Your task to perform on an android device: delete location history Image 0: 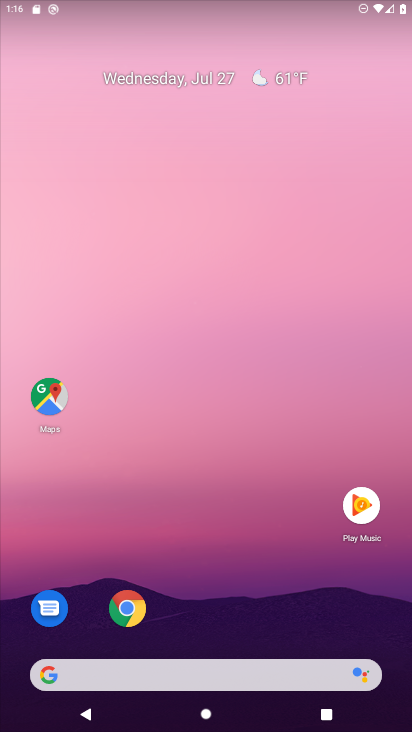
Step 0: press home button
Your task to perform on an android device: delete location history Image 1: 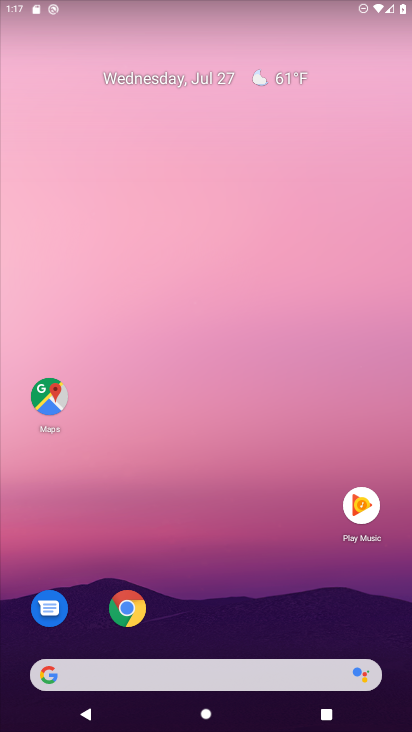
Step 1: drag from (301, 581) to (318, 151)
Your task to perform on an android device: delete location history Image 2: 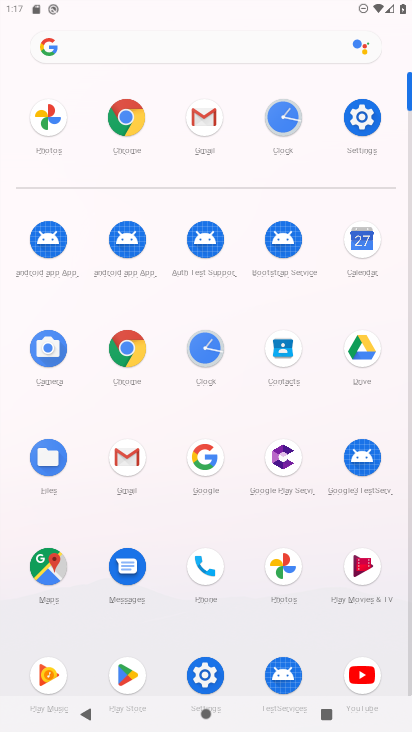
Step 2: click (49, 563)
Your task to perform on an android device: delete location history Image 3: 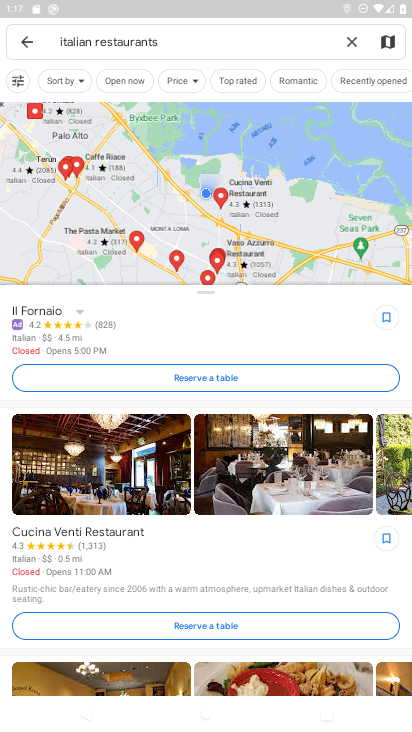
Step 3: press back button
Your task to perform on an android device: delete location history Image 4: 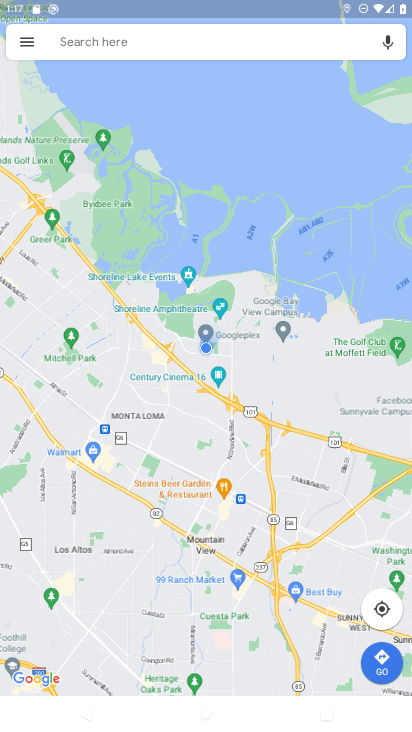
Step 4: click (28, 43)
Your task to perform on an android device: delete location history Image 5: 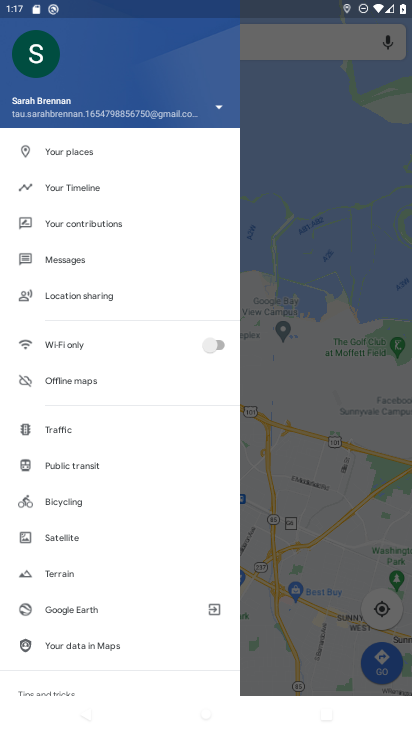
Step 5: click (77, 182)
Your task to perform on an android device: delete location history Image 6: 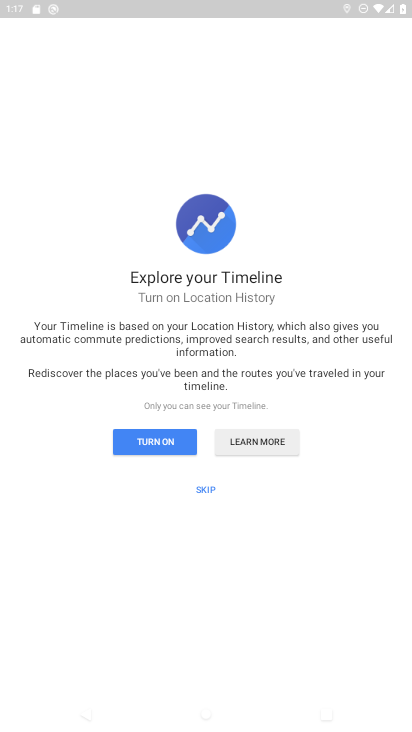
Step 6: click (200, 482)
Your task to perform on an android device: delete location history Image 7: 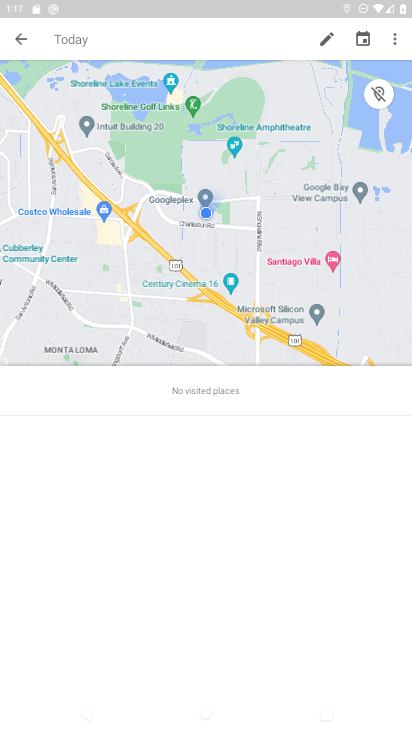
Step 7: click (398, 43)
Your task to perform on an android device: delete location history Image 8: 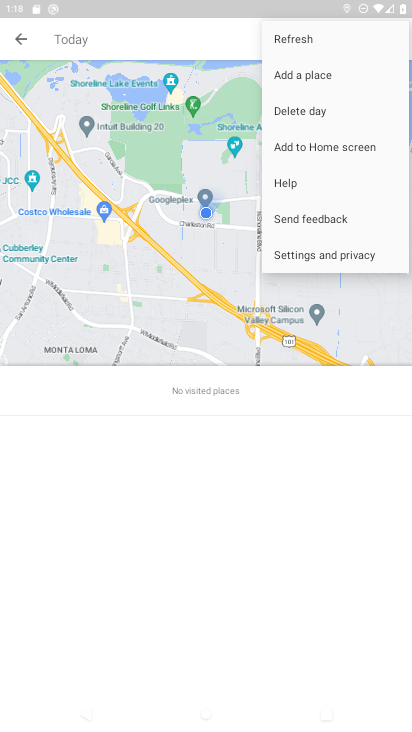
Step 8: click (344, 252)
Your task to perform on an android device: delete location history Image 9: 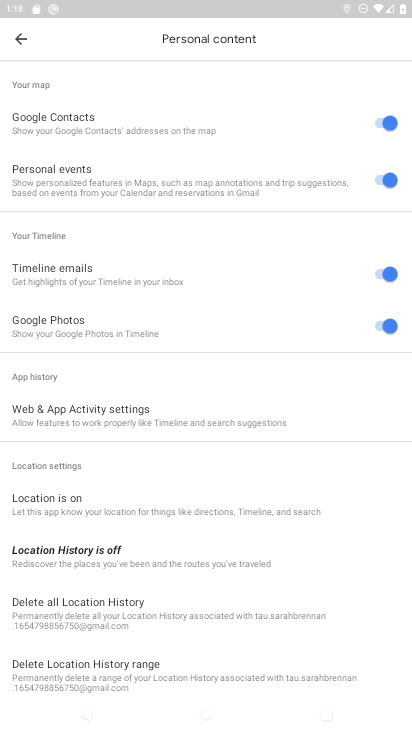
Step 9: click (201, 603)
Your task to perform on an android device: delete location history Image 10: 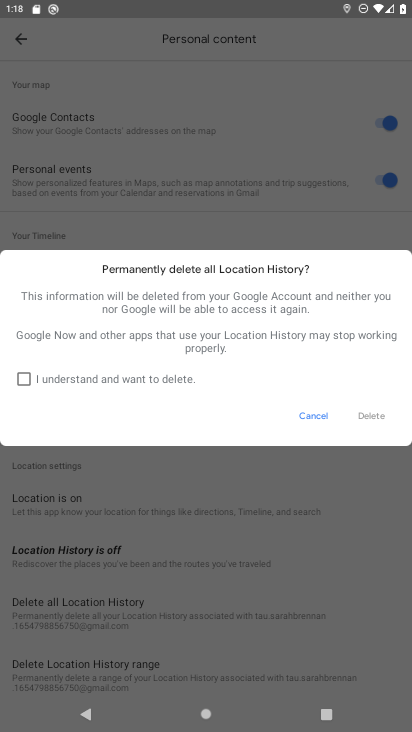
Step 10: click (21, 374)
Your task to perform on an android device: delete location history Image 11: 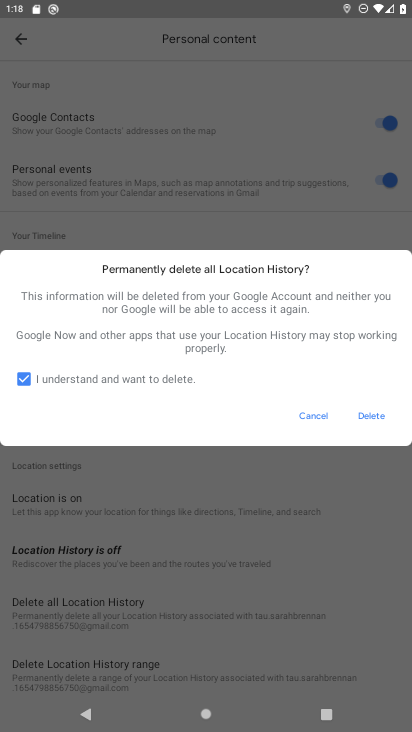
Step 11: click (370, 407)
Your task to perform on an android device: delete location history Image 12: 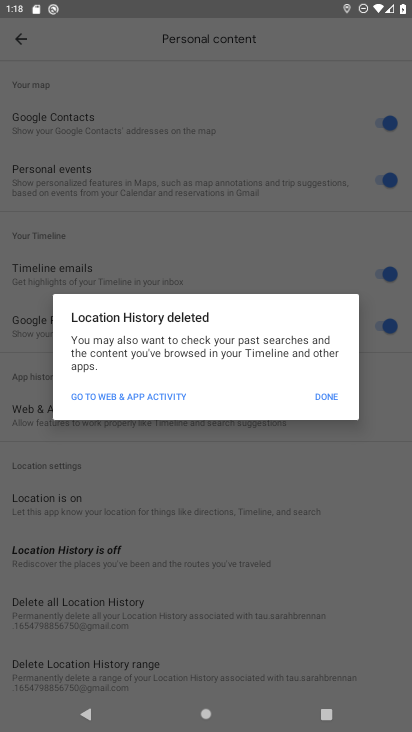
Step 12: click (334, 395)
Your task to perform on an android device: delete location history Image 13: 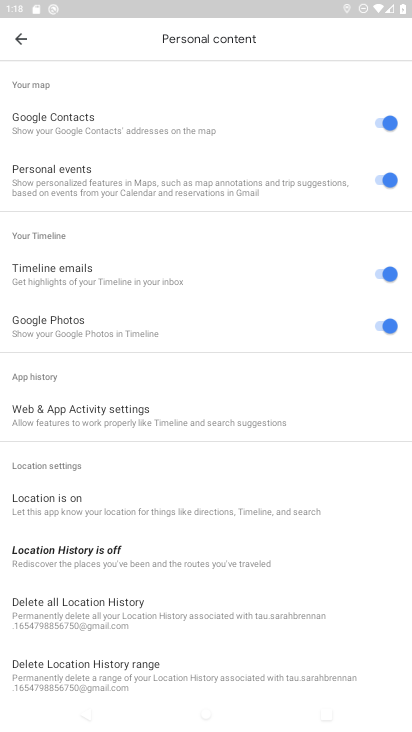
Step 13: task complete